Your task to perform on an android device: What's the weather? Image 0: 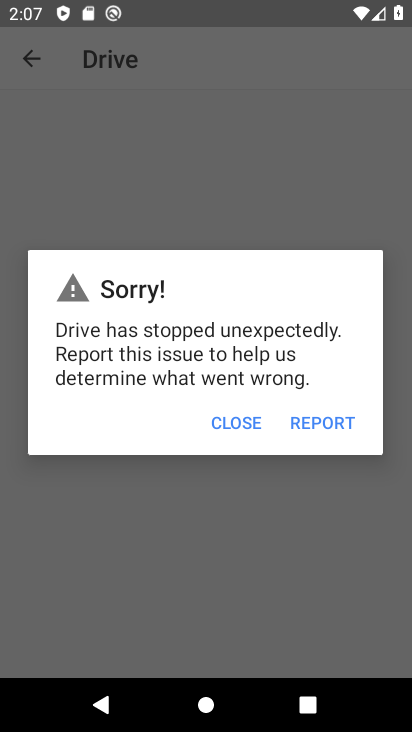
Step 0: press home button
Your task to perform on an android device: What's the weather? Image 1: 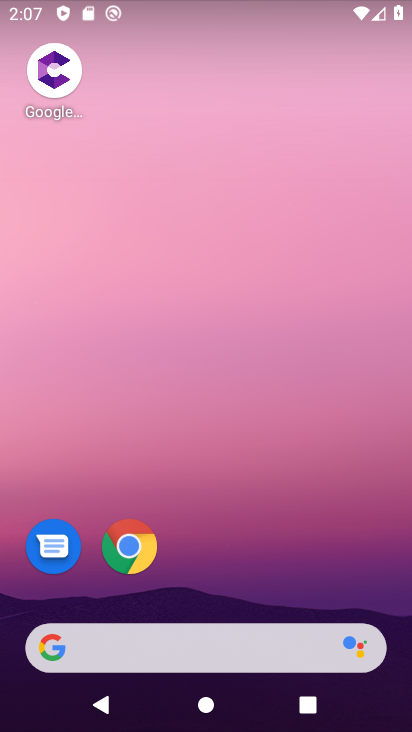
Step 1: click (93, 650)
Your task to perform on an android device: What's the weather? Image 2: 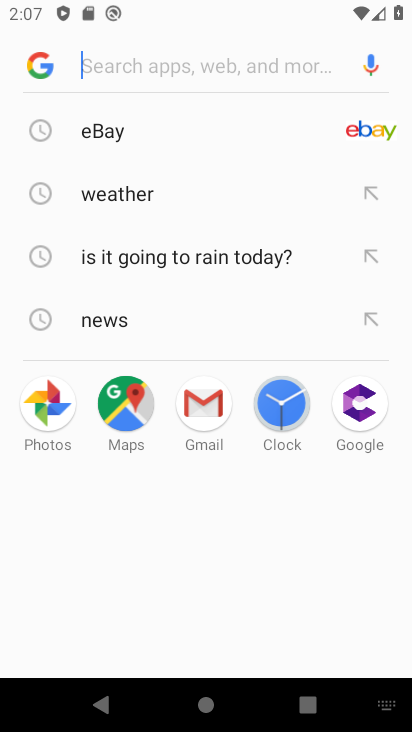
Step 2: click (121, 189)
Your task to perform on an android device: What's the weather? Image 3: 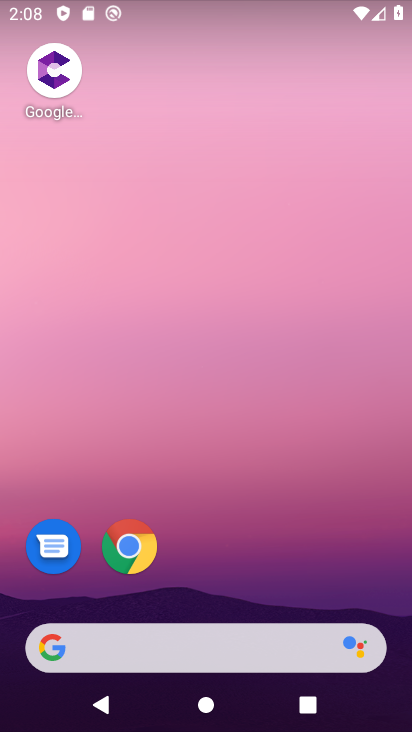
Step 3: task complete